Your task to perform on an android device: Search for 12ft 120W LED tube light on home depot Image 0: 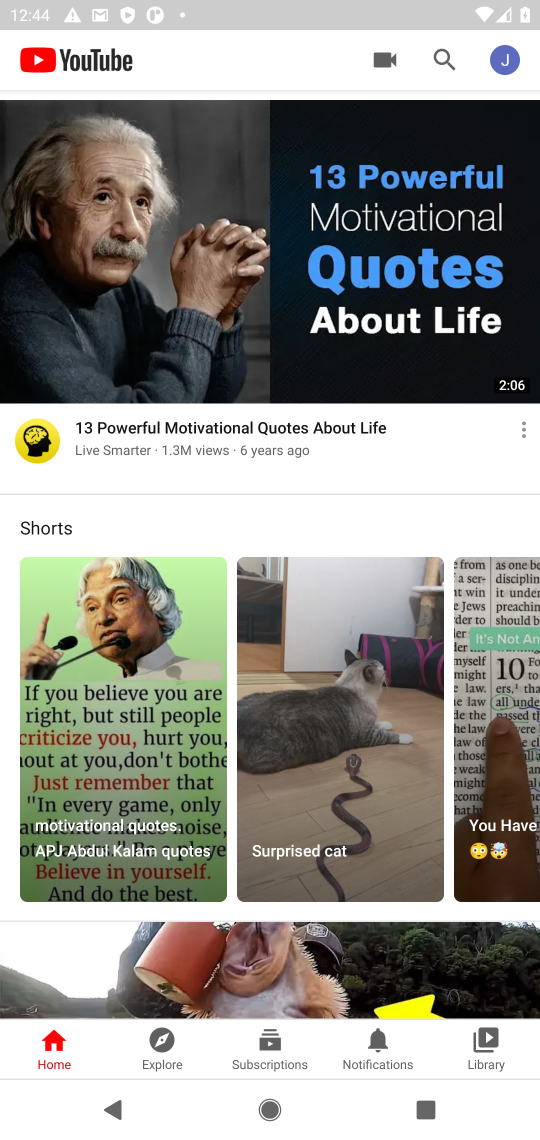
Step 0: press home button
Your task to perform on an android device: Search for 12ft 120W LED tube light on home depot Image 1: 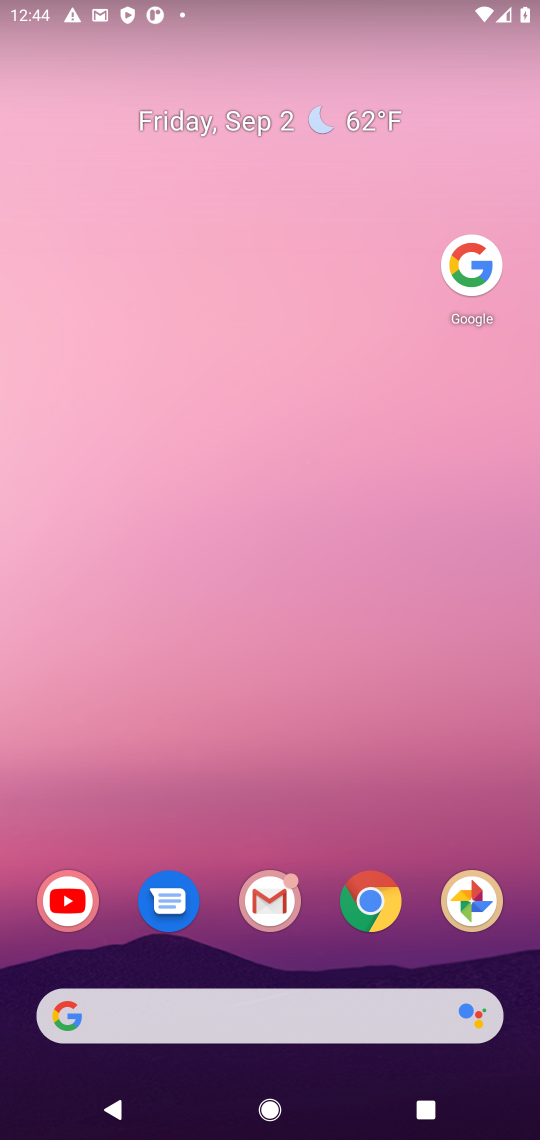
Step 1: click (276, 434)
Your task to perform on an android device: Search for 12ft 120W LED tube light on home depot Image 2: 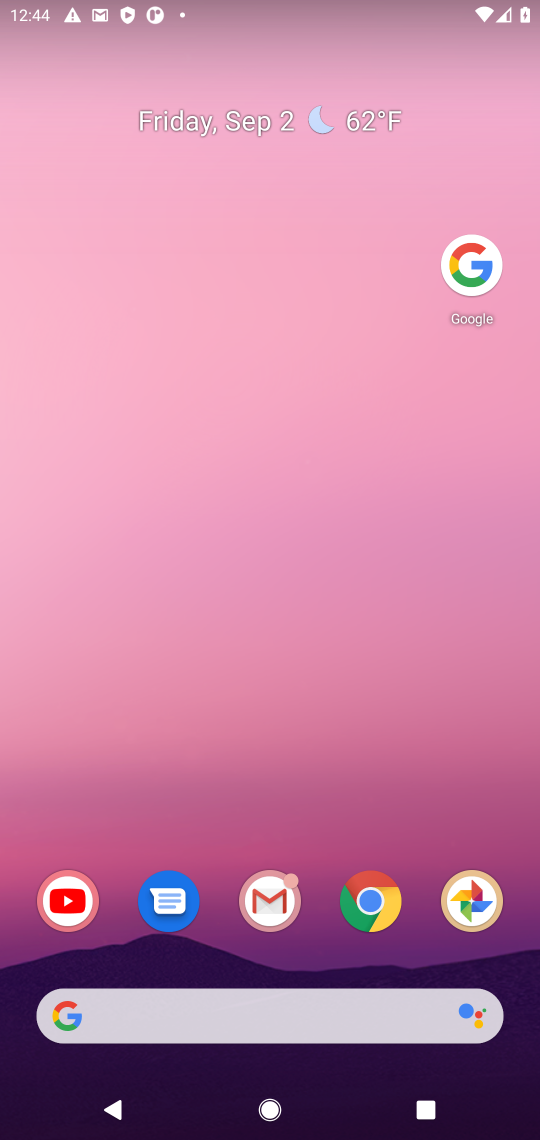
Step 2: click (462, 246)
Your task to perform on an android device: Search for 12ft 120W LED tube light on home depot Image 3: 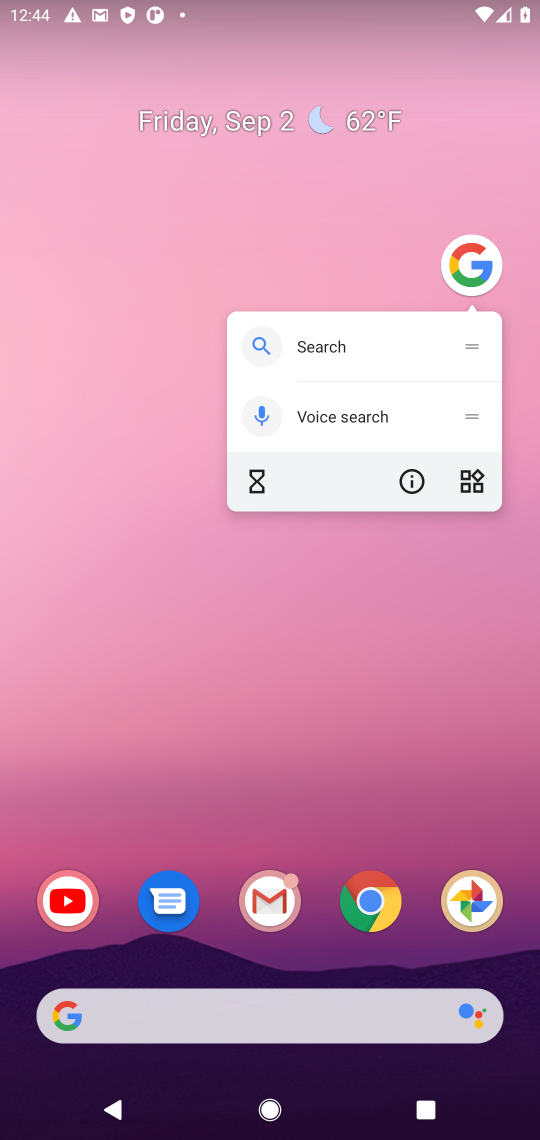
Step 3: click (476, 267)
Your task to perform on an android device: Search for 12ft 120W LED tube light on home depot Image 4: 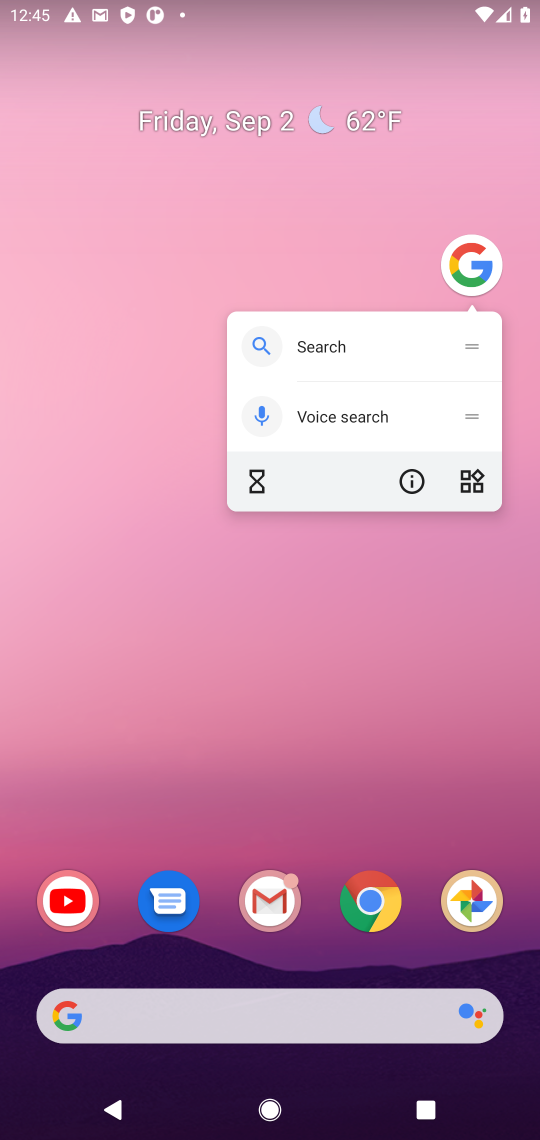
Step 4: click (475, 258)
Your task to perform on an android device: Search for 12ft 120W LED tube light on home depot Image 5: 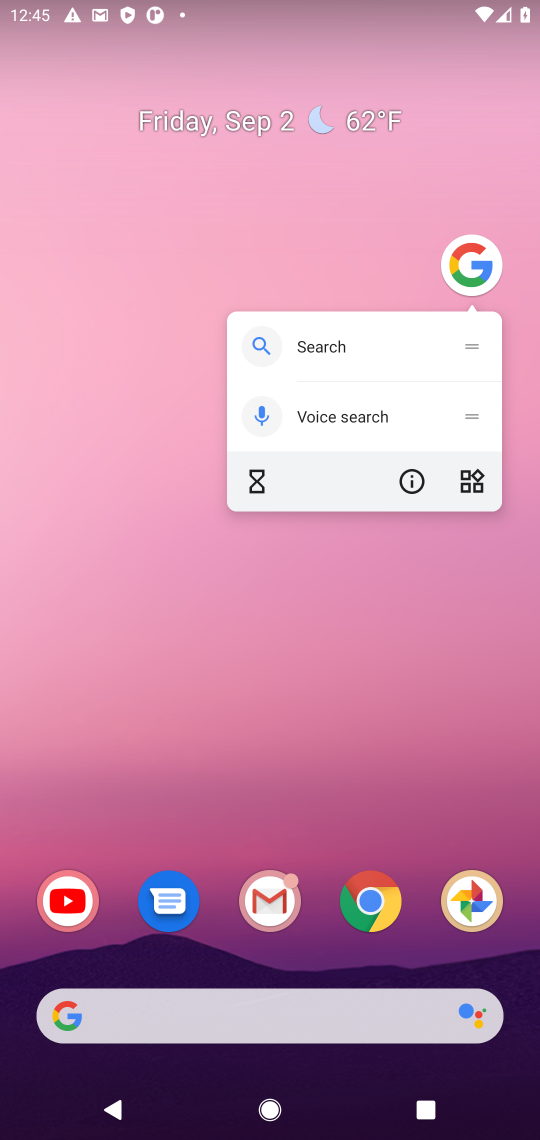
Step 5: click (470, 263)
Your task to perform on an android device: Search for 12ft 120W LED tube light on home depot Image 6: 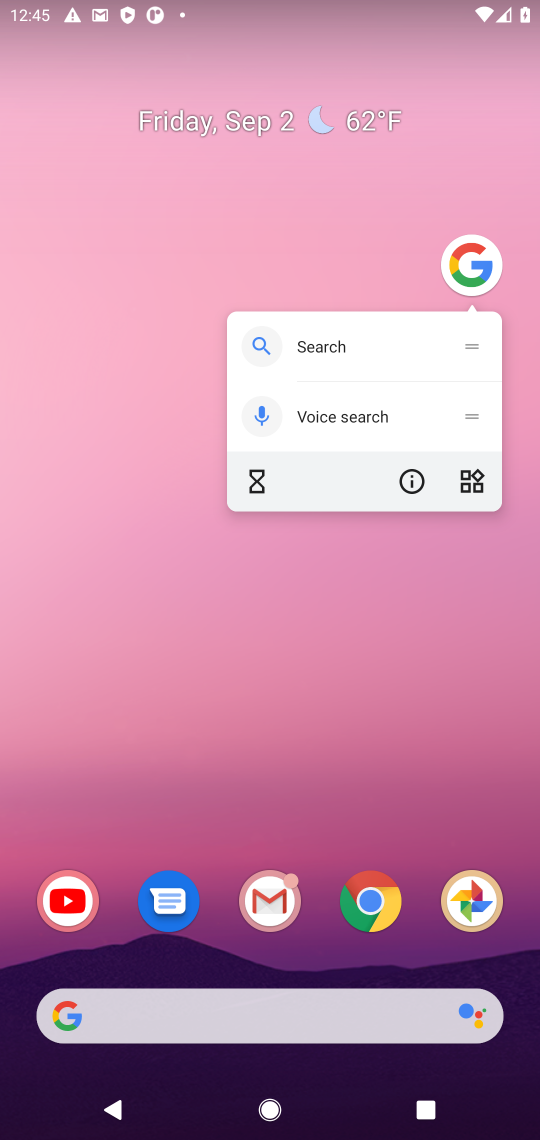
Step 6: click (470, 251)
Your task to perform on an android device: Search for 12ft 120W LED tube light on home depot Image 7: 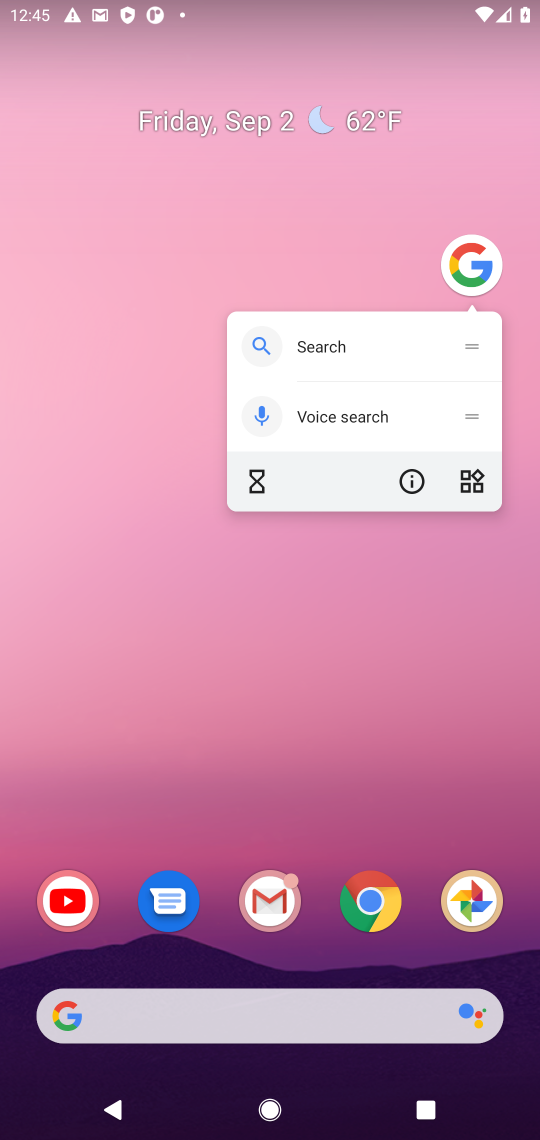
Step 7: click (470, 243)
Your task to perform on an android device: Search for 12ft 120W LED tube light on home depot Image 8: 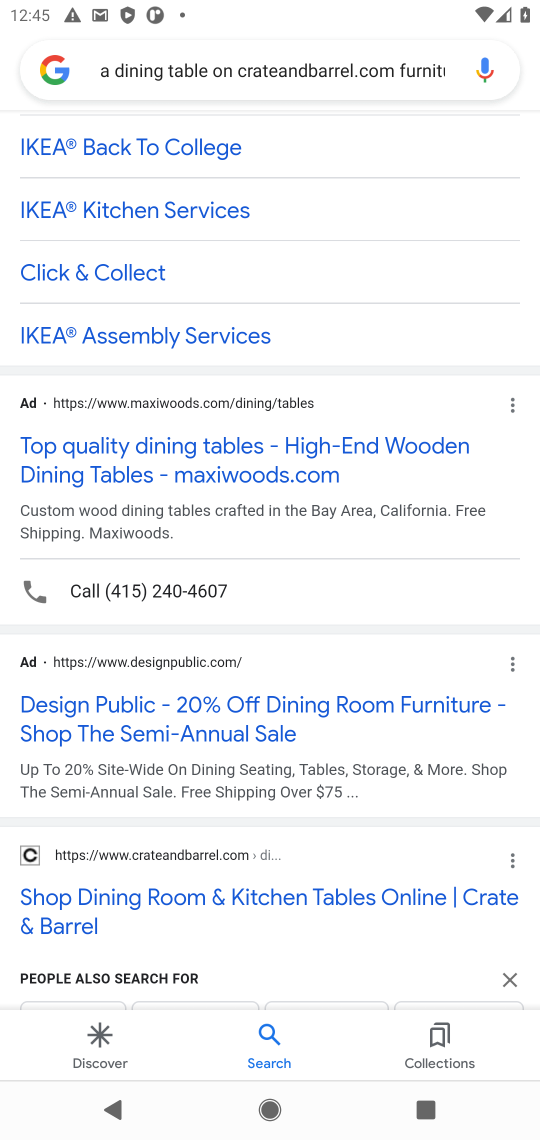
Step 8: drag from (231, 97) to (327, 942)
Your task to perform on an android device: Search for 12ft 120W LED tube light on home depot Image 9: 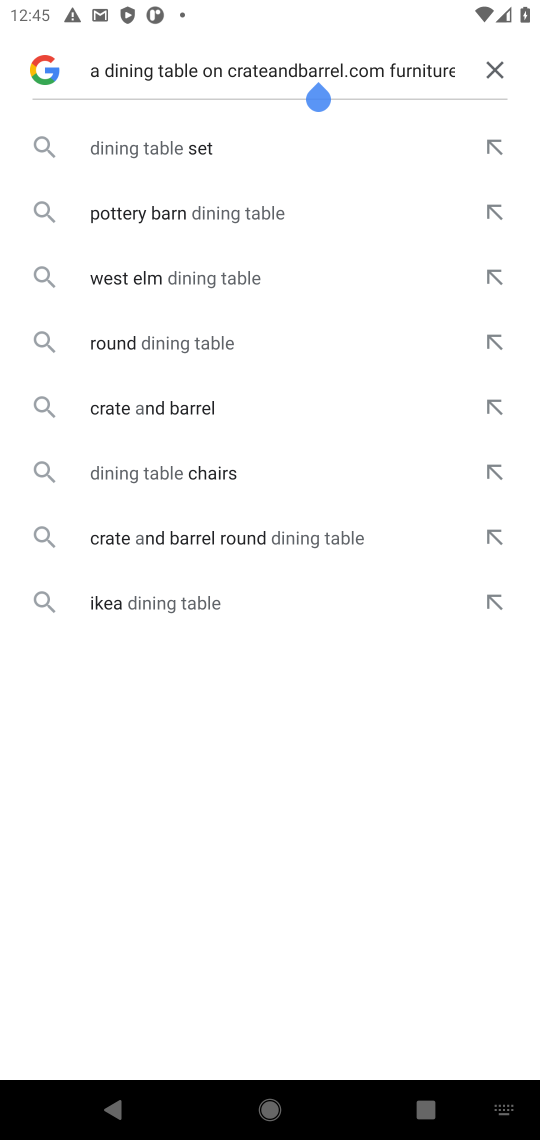
Step 9: click (492, 81)
Your task to perform on an android device: Search for 12ft 120W LED tube light on home depot Image 10: 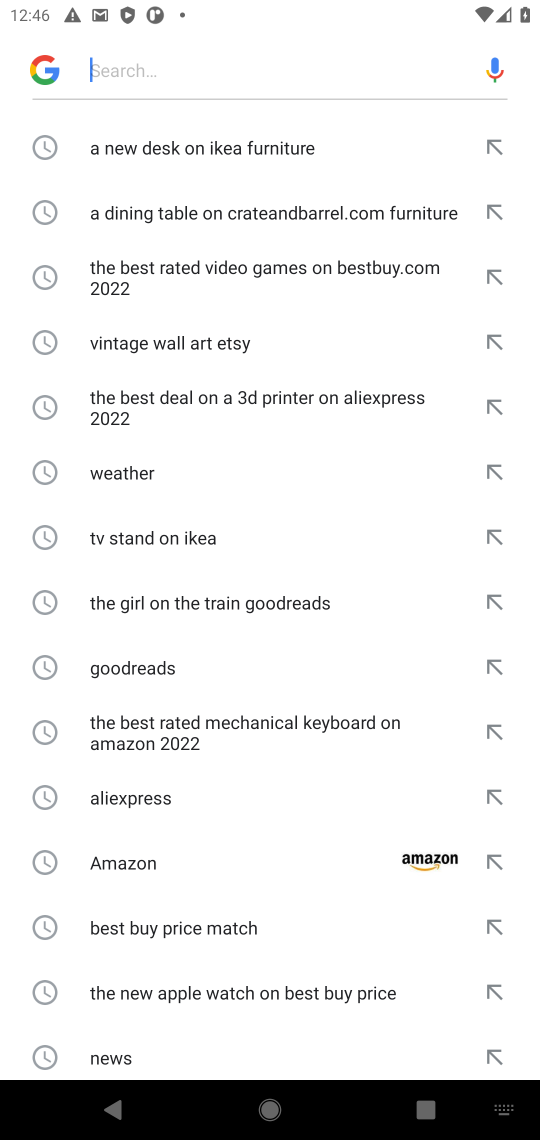
Step 10: click (264, 57)
Your task to perform on an android device: Search for 12ft 120W LED tube light on home depot Image 11: 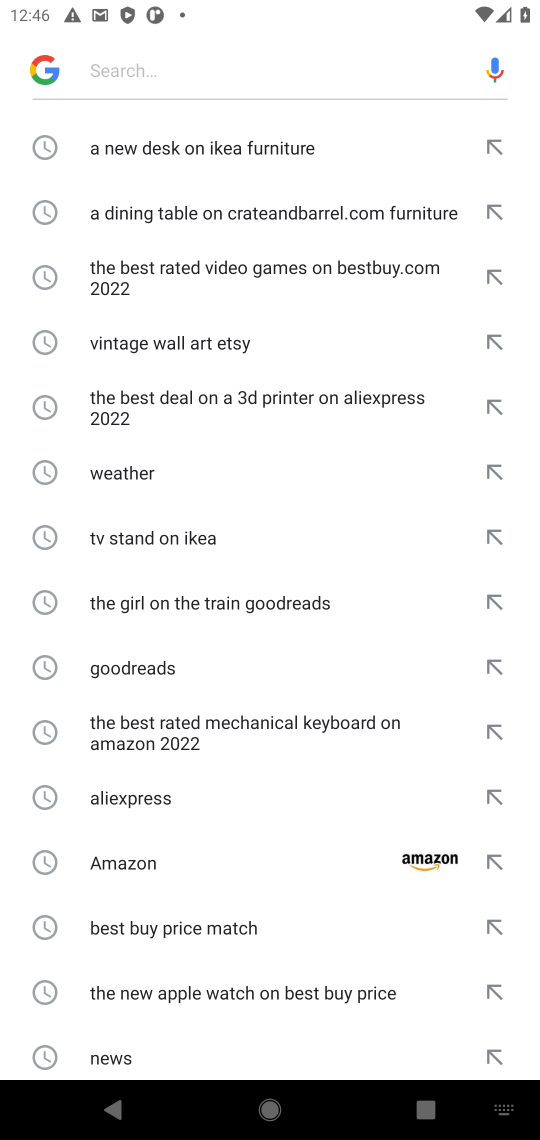
Step 11: type "Search for 12ft 120W LED tube light on home depot "
Your task to perform on an android device: Search for 12ft 120W LED tube light on home depot Image 12: 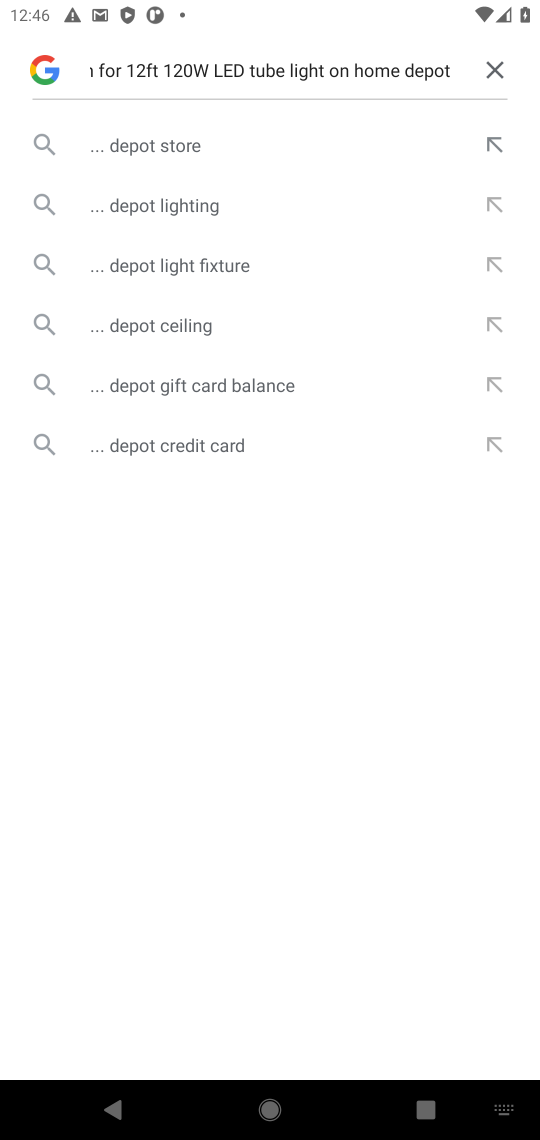
Step 12: click (203, 260)
Your task to perform on an android device: Search for 12ft 120W LED tube light on home depot Image 13: 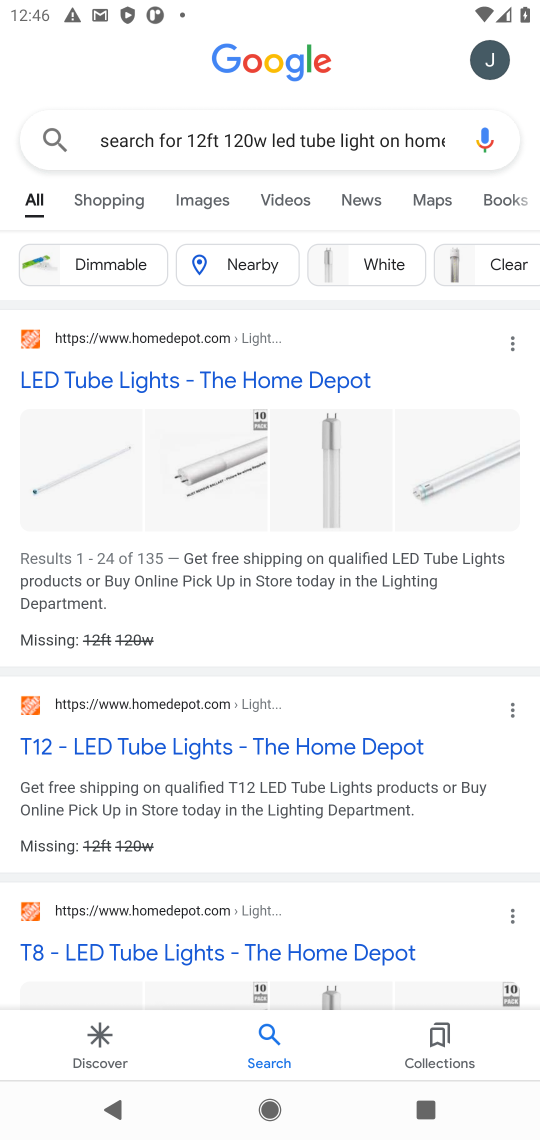
Step 13: click (139, 382)
Your task to perform on an android device: Search for 12ft 120W LED tube light on home depot Image 14: 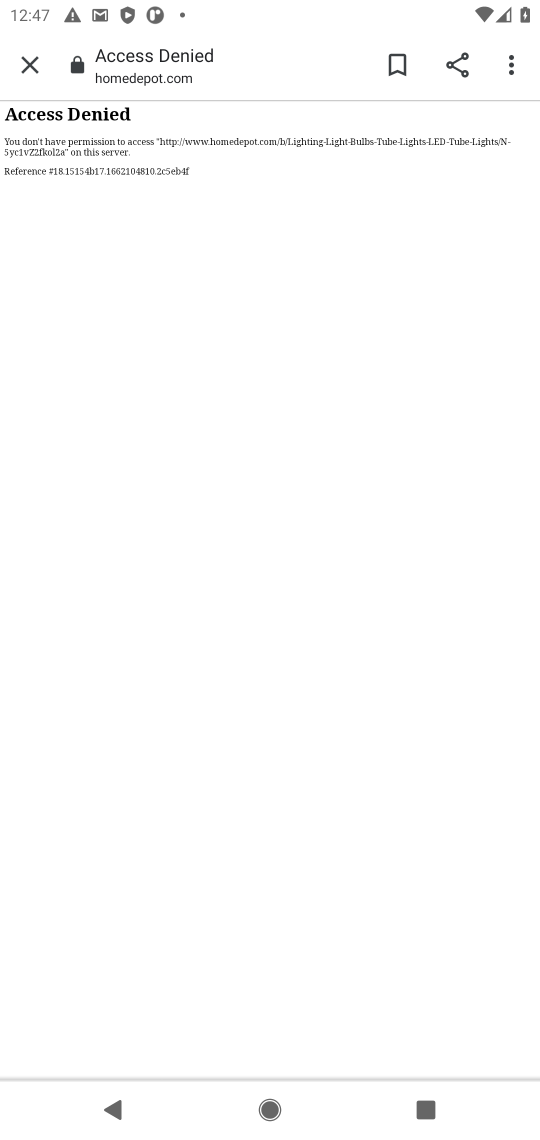
Step 14: task complete